Your task to perform on an android device: Open network settings Image 0: 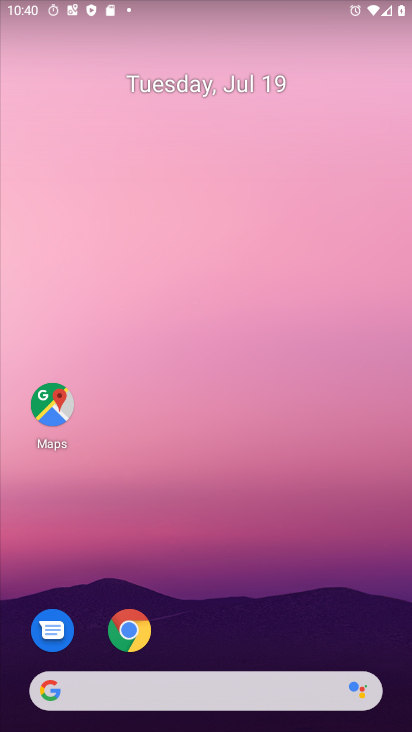
Step 0: press home button
Your task to perform on an android device: Open network settings Image 1: 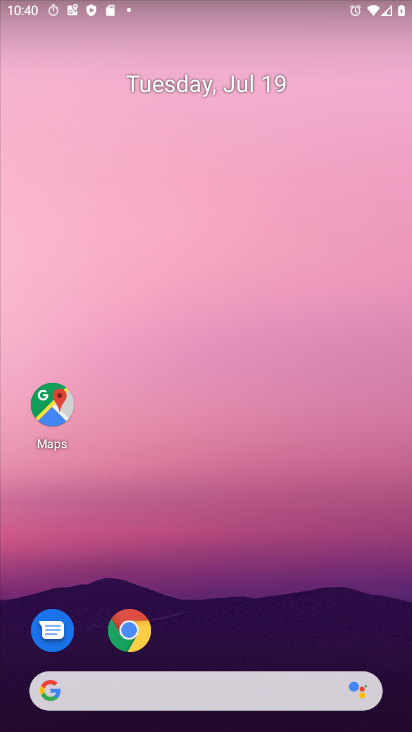
Step 1: drag from (264, 530) to (272, 140)
Your task to perform on an android device: Open network settings Image 2: 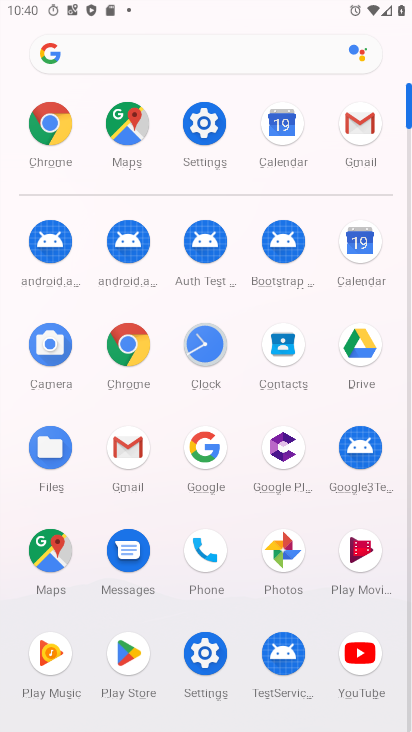
Step 2: click (205, 115)
Your task to perform on an android device: Open network settings Image 3: 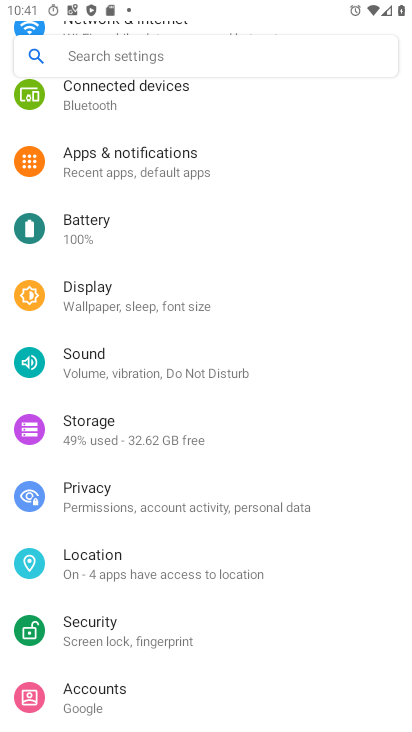
Step 3: drag from (172, 195) to (157, 526)
Your task to perform on an android device: Open network settings Image 4: 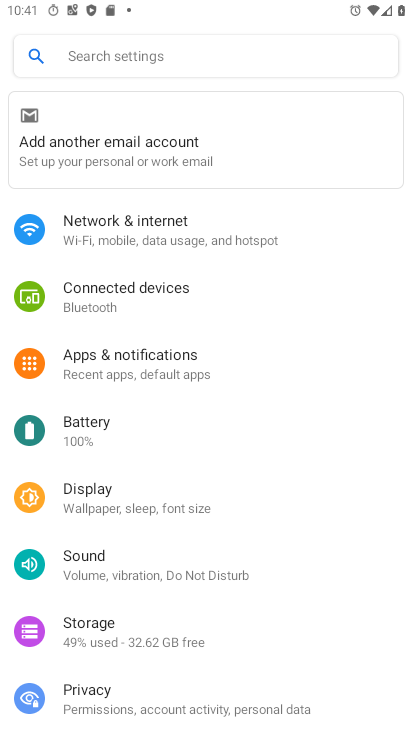
Step 4: click (126, 235)
Your task to perform on an android device: Open network settings Image 5: 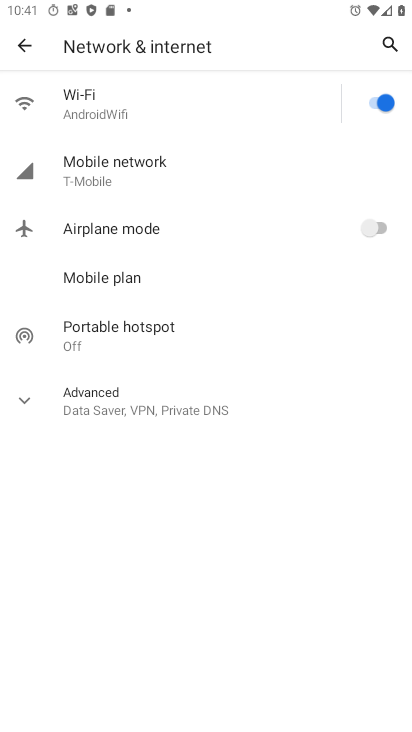
Step 5: task complete